Your task to perform on an android device: turn on sleep mode Image 0: 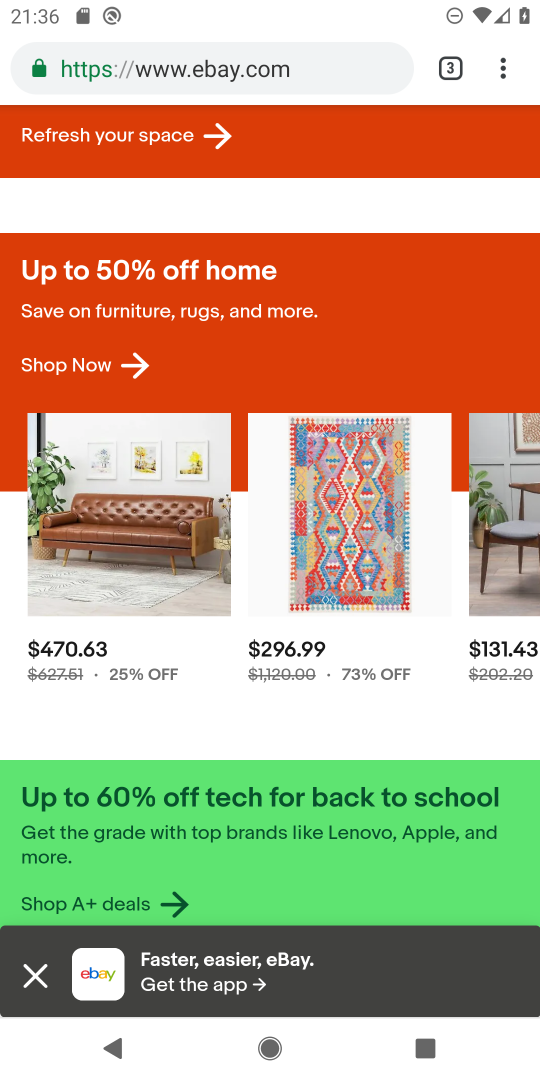
Step 0: press home button
Your task to perform on an android device: turn on sleep mode Image 1: 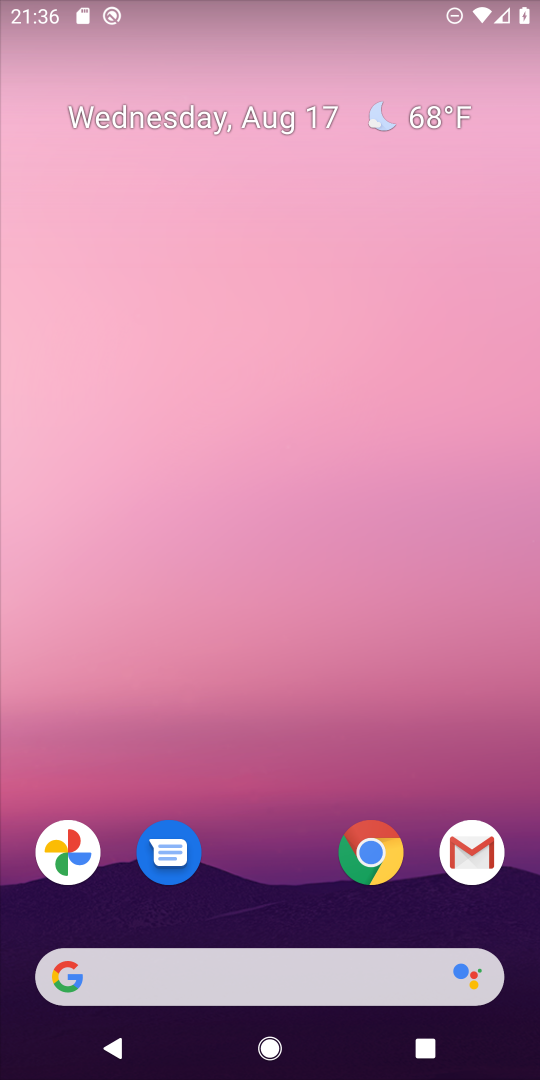
Step 1: drag from (254, 877) to (200, 165)
Your task to perform on an android device: turn on sleep mode Image 2: 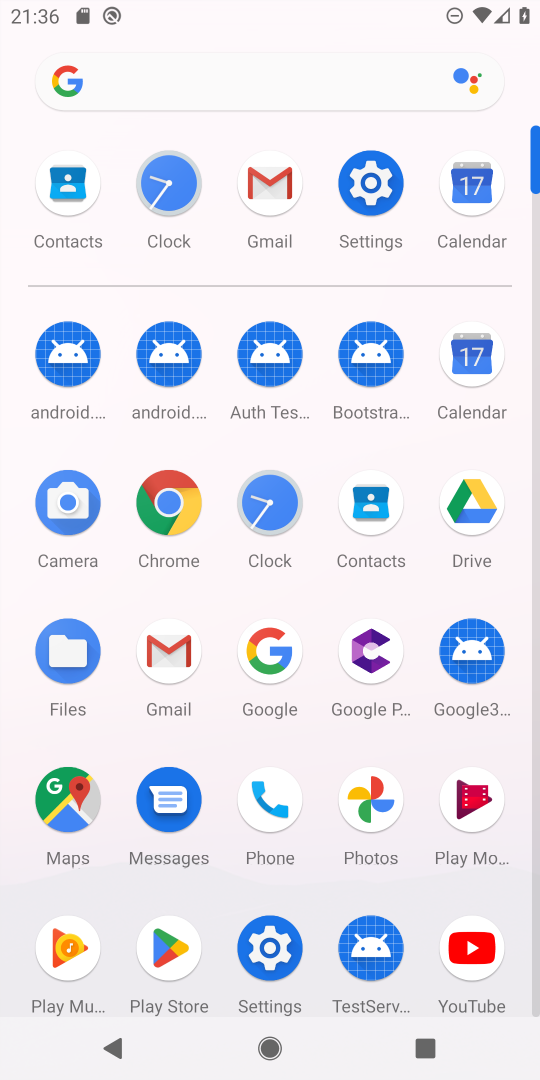
Step 2: click (356, 194)
Your task to perform on an android device: turn on sleep mode Image 3: 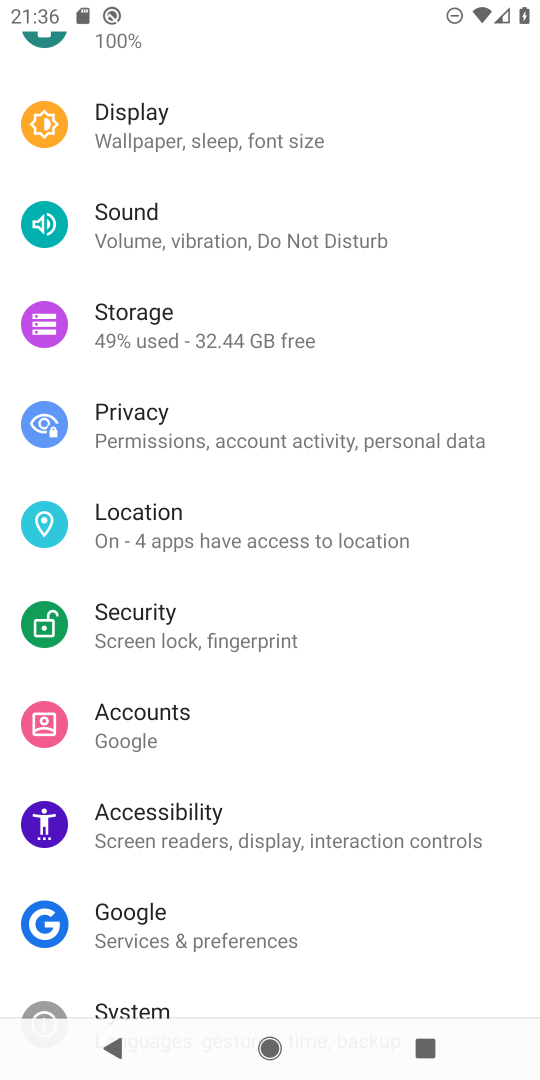
Step 3: click (131, 122)
Your task to perform on an android device: turn on sleep mode Image 4: 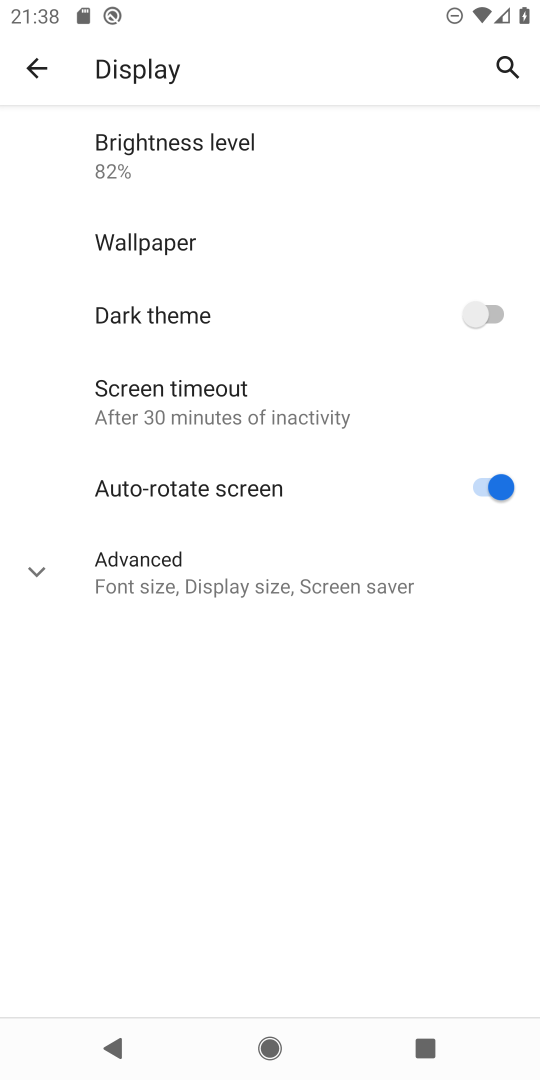
Step 4: click (41, 60)
Your task to perform on an android device: turn on sleep mode Image 5: 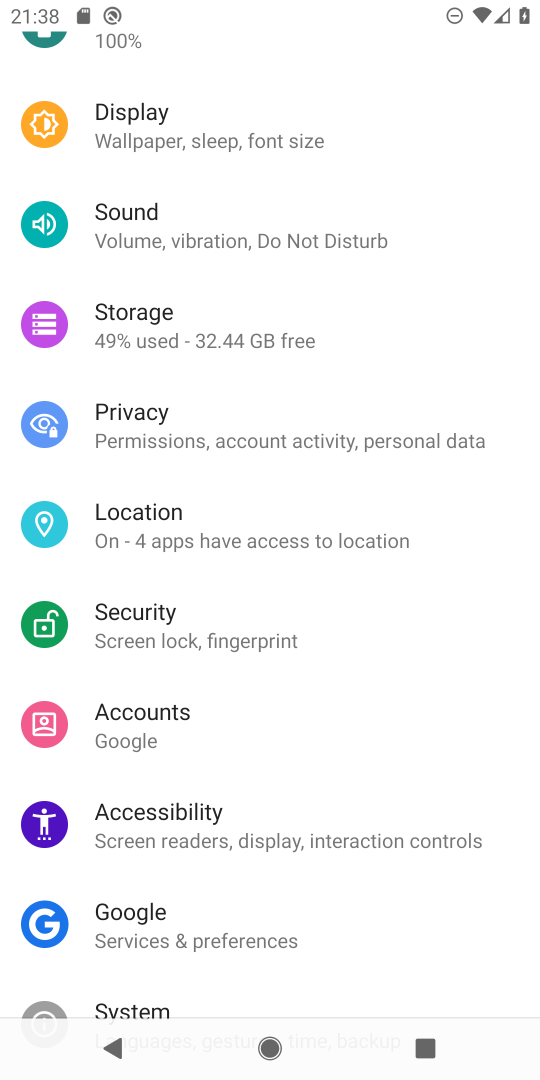
Step 5: click (122, 116)
Your task to perform on an android device: turn on sleep mode Image 6: 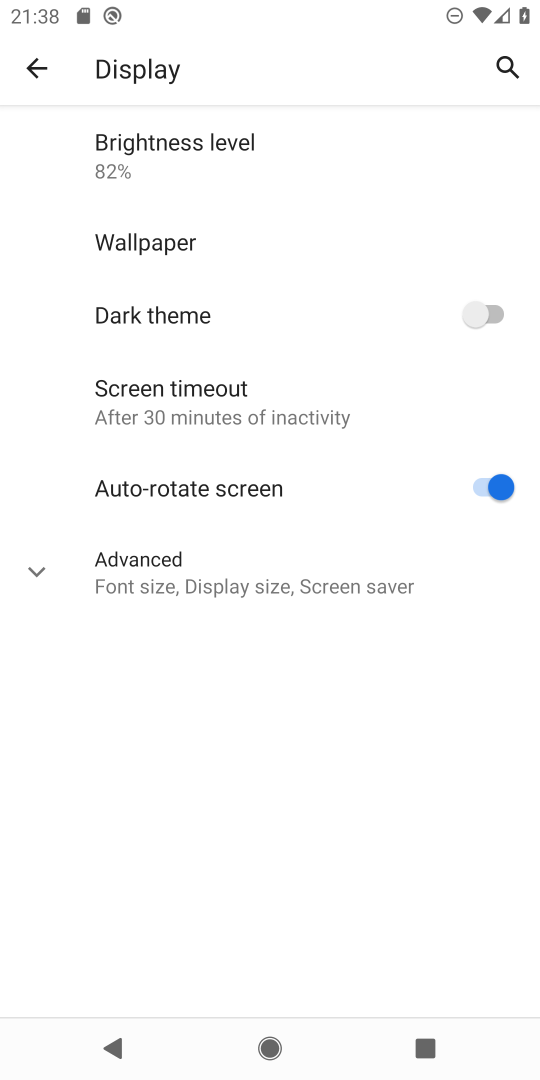
Step 6: task complete